Your task to perform on an android device: Show me productivity apps on the Play Store Image 0: 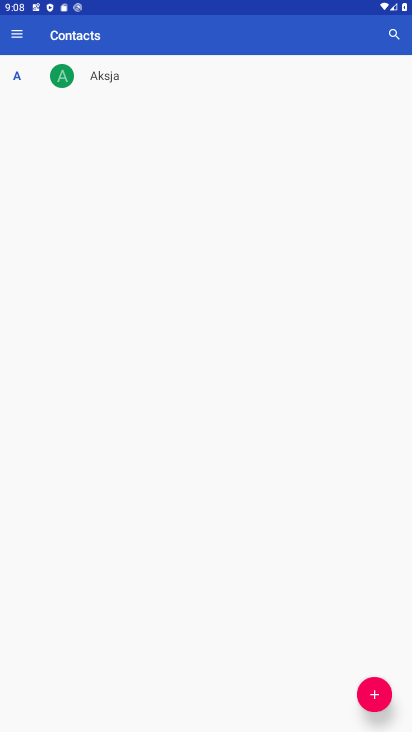
Step 0: press home button
Your task to perform on an android device: Show me productivity apps on the Play Store Image 1: 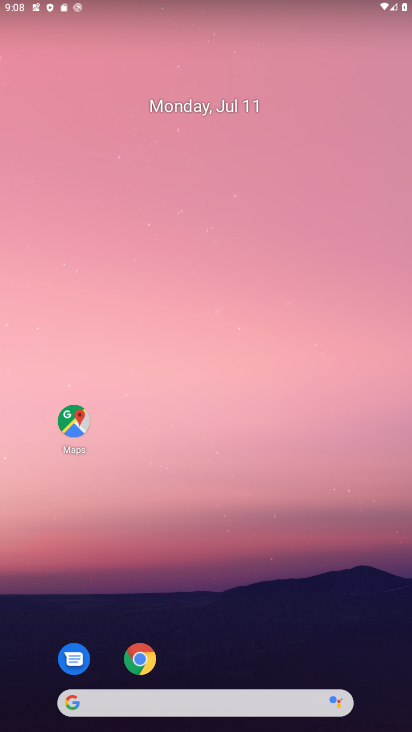
Step 1: drag from (193, 721) to (193, 97)
Your task to perform on an android device: Show me productivity apps on the Play Store Image 2: 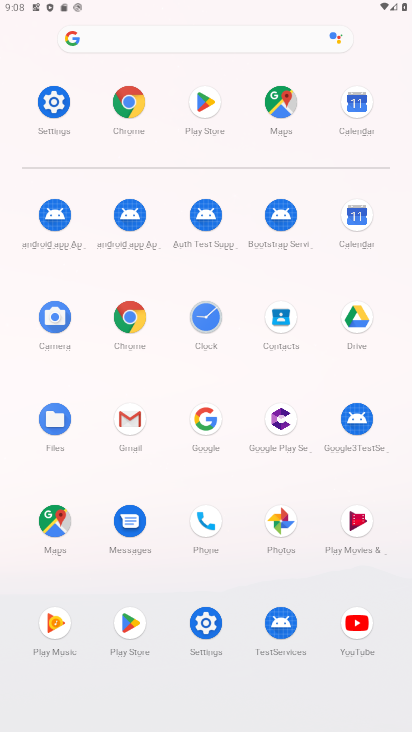
Step 2: click (133, 626)
Your task to perform on an android device: Show me productivity apps on the Play Store Image 3: 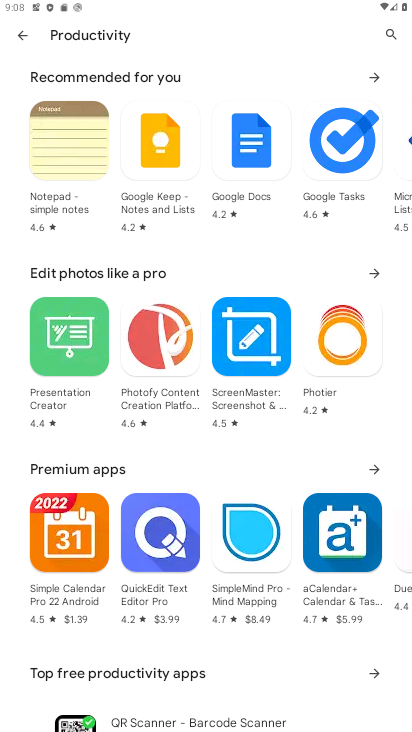
Step 3: task complete